Your task to perform on an android device: Open the calendar and show me this week's events? Image 0: 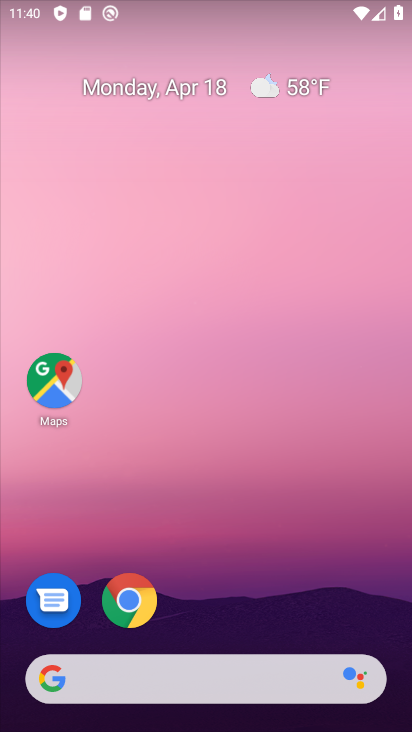
Step 0: drag from (326, 687) to (288, 356)
Your task to perform on an android device: Open the calendar and show me this week's events? Image 1: 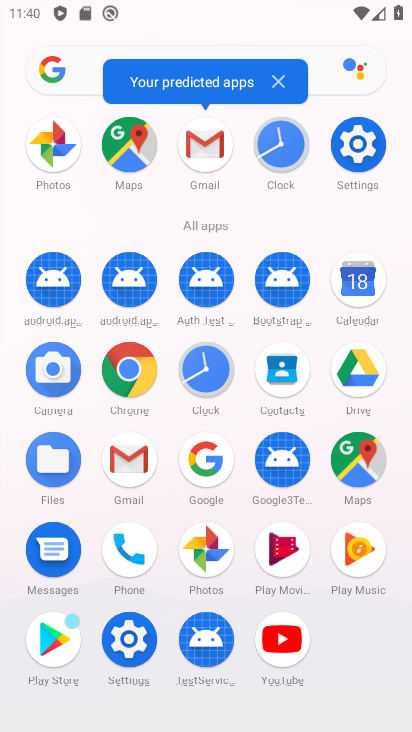
Step 1: click (355, 280)
Your task to perform on an android device: Open the calendar and show me this week's events? Image 2: 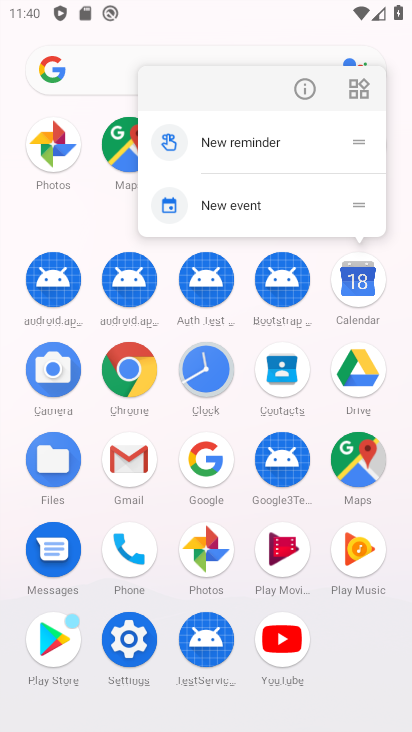
Step 2: click (355, 280)
Your task to perform on an android device: Open the calendar and show me this week's events? Image 3: 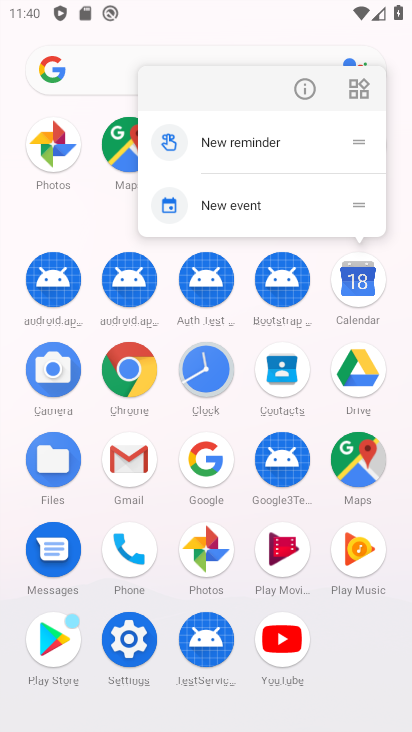
Step 3: click (354, 284)
Your task to perform on an android device: Open the calendar and show me this week's events? Image 4: 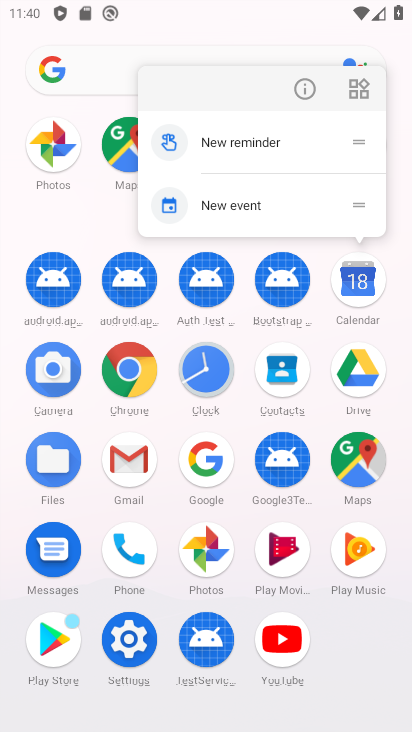
Step 4: click (358, 285)
Your task to perform on an android device: Open the calendar and show me this week's events? Image 5: 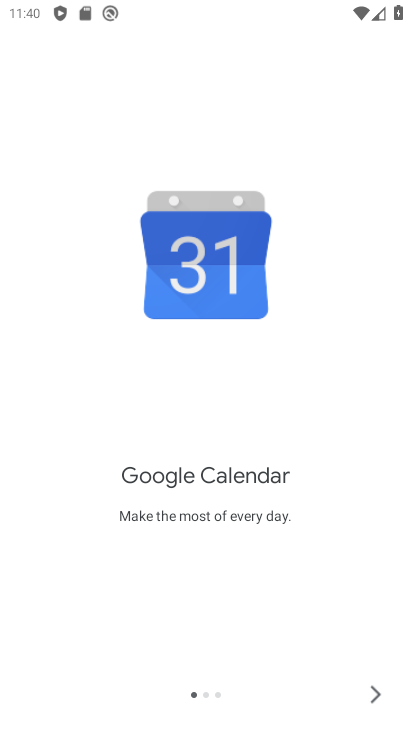
Step 5: click (382, 699)
Your task to perform on an android device: Open the calendar and show me this week's events? Image 6: 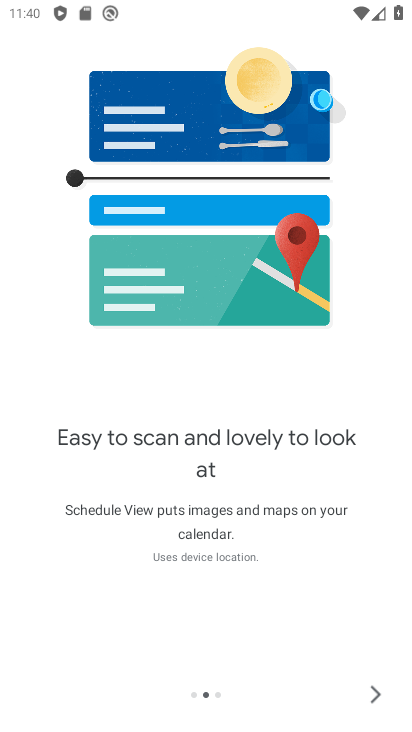
Step 6: click (382, 699)
Your task to perform on an android device: Open the calendar and show me this week's events? Image 7: 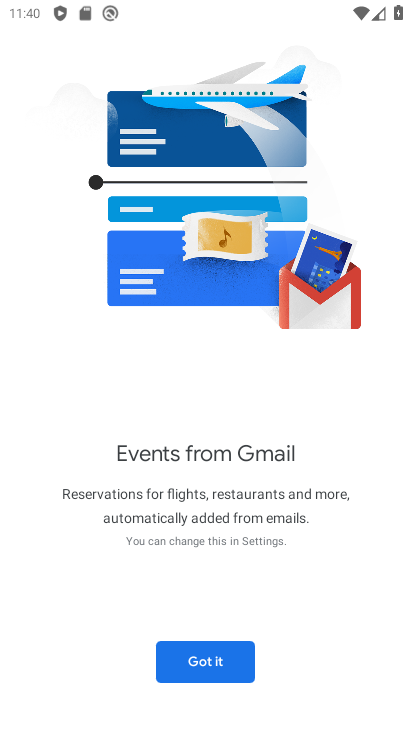
Step 7: click (204, 658)
Your task to perform on an android device: Open the calendar and show me this week's events? Image 8: 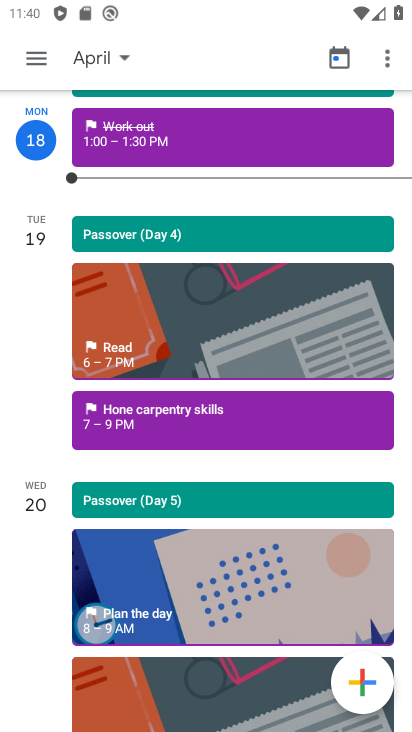
Step 8: click (37, 65)
Your task to perform on an android device: Open the calendar and show me this week's events? Image 9: 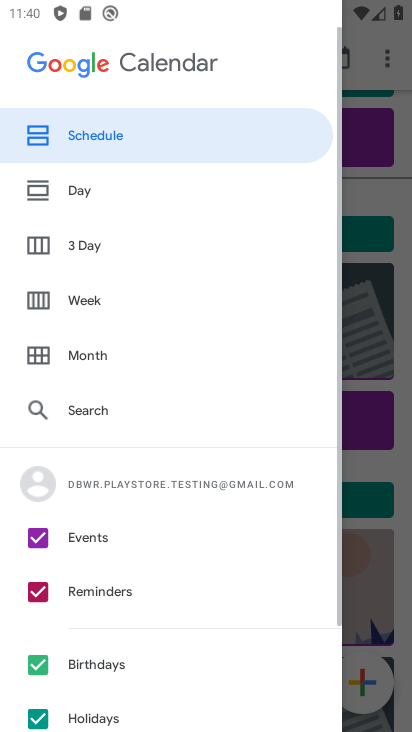
Step 9: click (109, 144)
Your task to perform on an android device: Open the calendar and show me this week's events? Image 10: 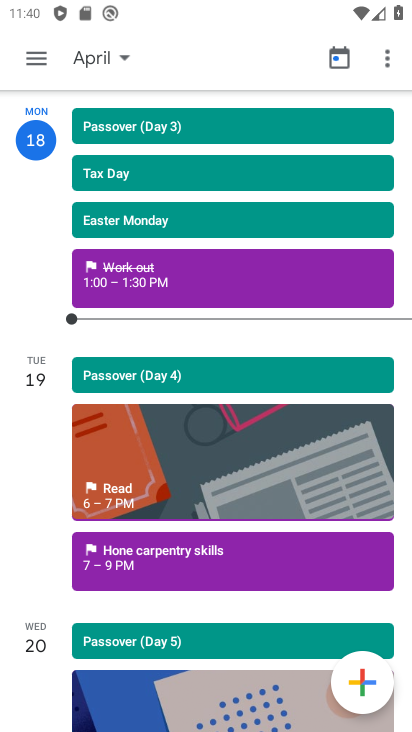
Step 10: task complete